Your task to perform on an android device: Go to display settings Image 0: 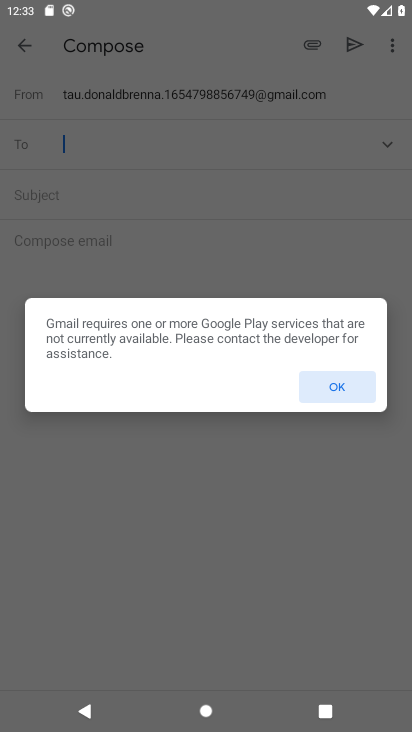
Step 0: press home button
Your task to perform on an android device: Go to display settings Image 1: 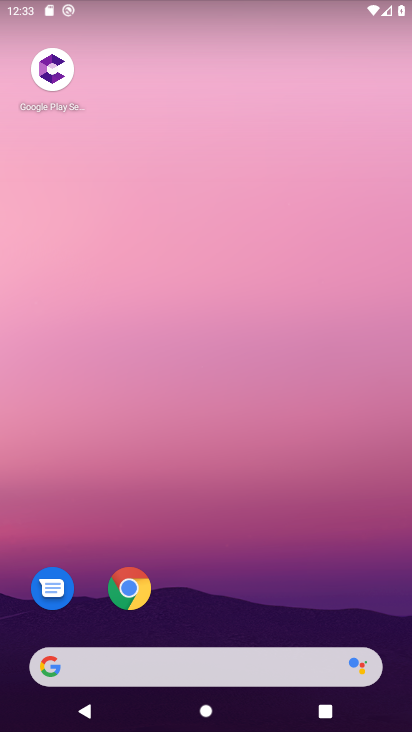
Step 1: drag from (272, 567) to (327, 3)
Your task to perform on an android device: Go to display settings Image 2: 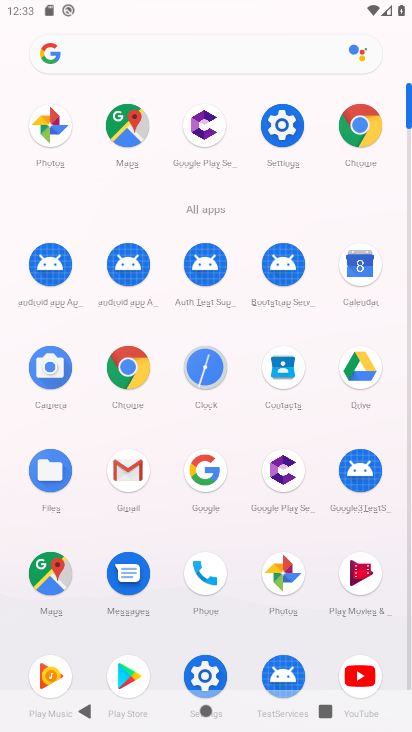
Step 2: click (286, 120)
Your task to perform on an android device: Go to display settings Image 3: 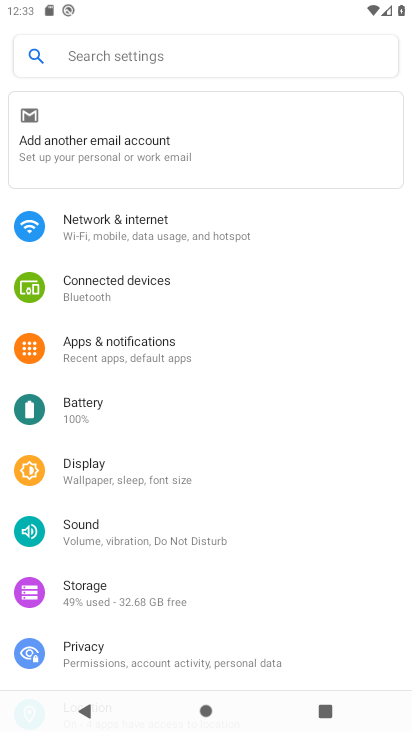
Step 3: click (99, 475)
Your task to perform on an android device: Go to display settings Image 4: 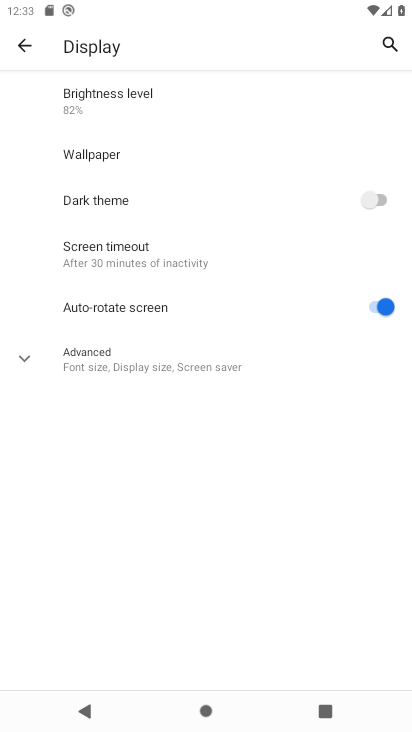
Step 4: task complete